Your task to perform on an android device: What's on my calendar today? Image 0: 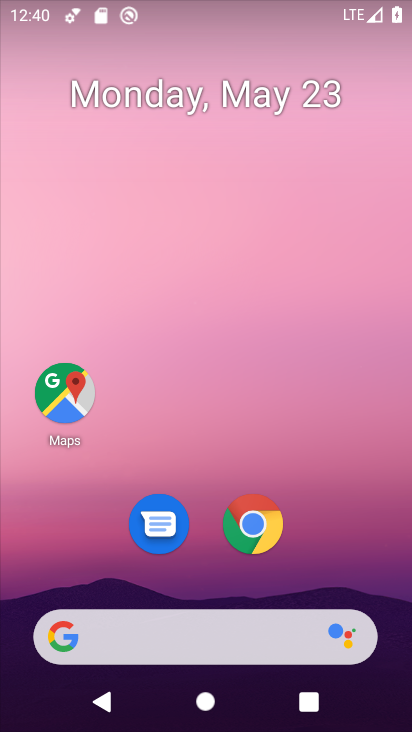
Step 0: drag from (225, 435) to (284, 58)
Your task to perform on an android device: What's on my calendar today? Image 1: 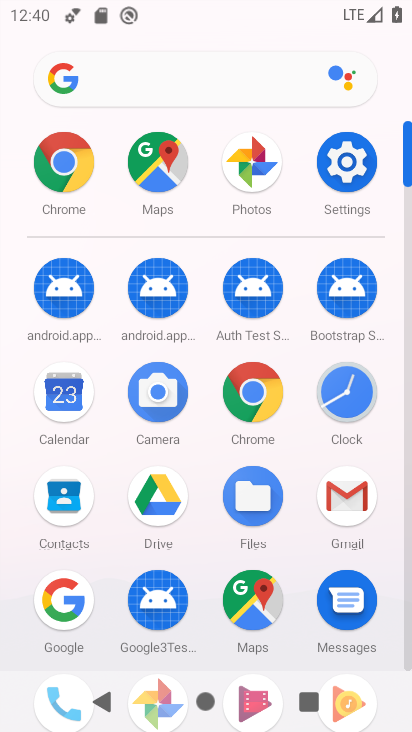
Step 1: click (64, 393)
Your task to perform on an android device: What's on my calendar today? Image 2: 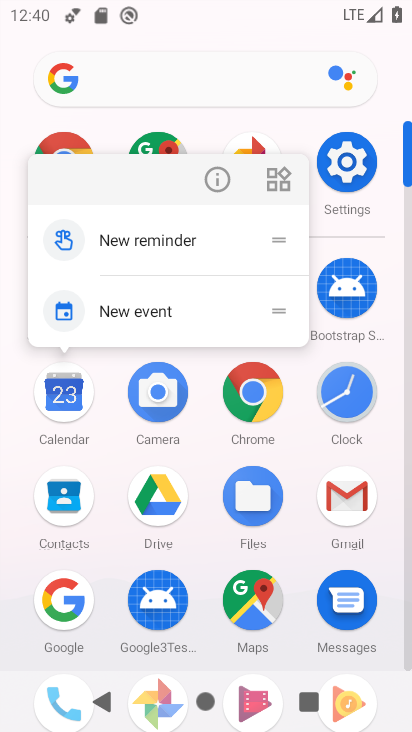
Step 2: click (64, 391)
Your task to perform on an android device: What's on my calendar today? Image 3: 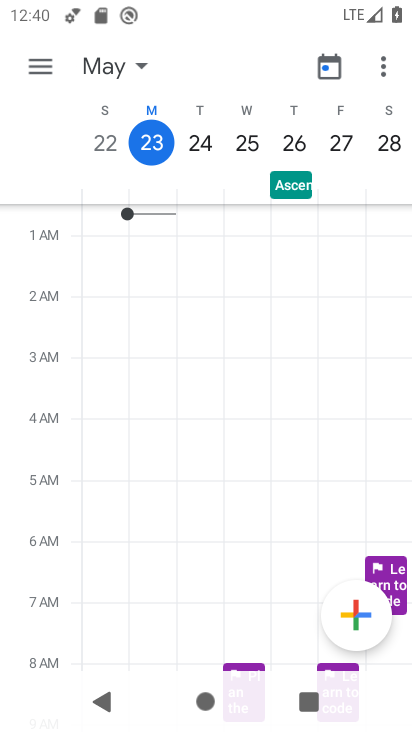
Step 3: click (149, 138)
Your task to perform on an android device: What's on my calendar today? Image 4: 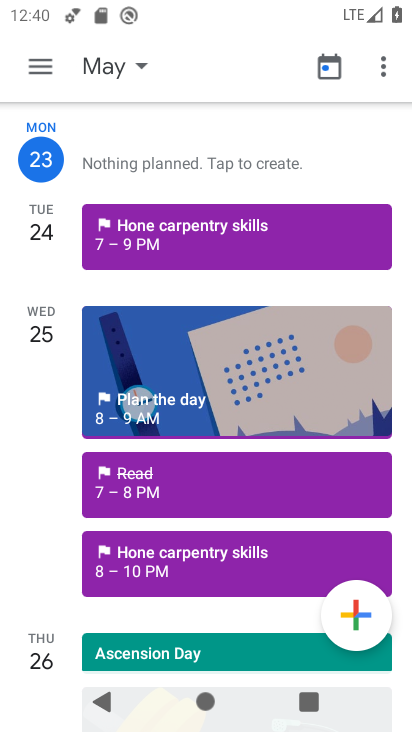
Step 4: task complete